Your task to perform on an android device: Open Wikipedia Image 0: 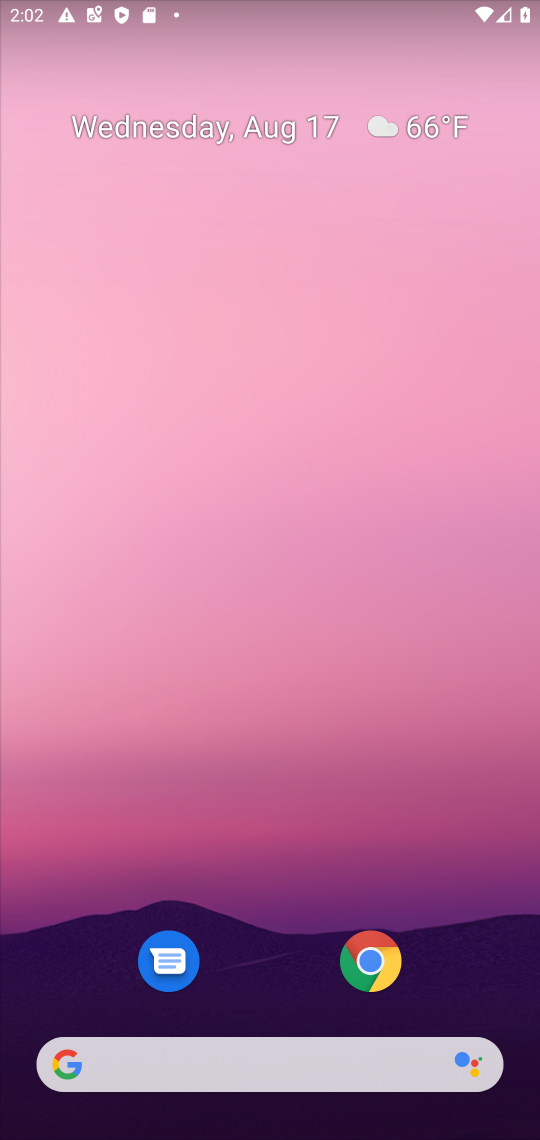
Step 0: drag from (292, 1001) to (331, 430)
Your task to perform on an android device: Open Wikipedia Image 1: 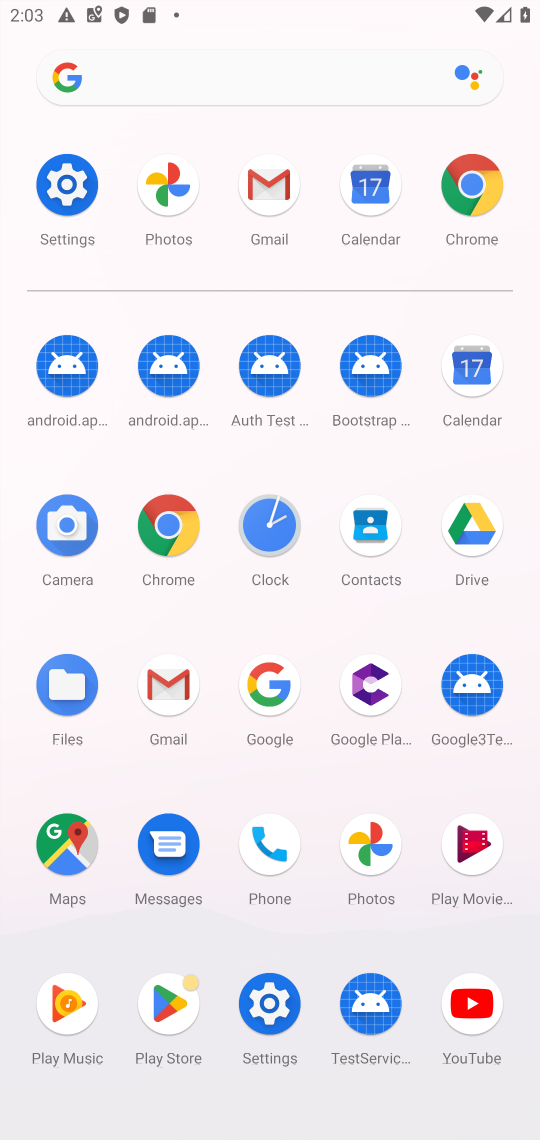
Step 1: click (479, 215)
Your task to perform on an android device: Open Wikipedia Image 2: 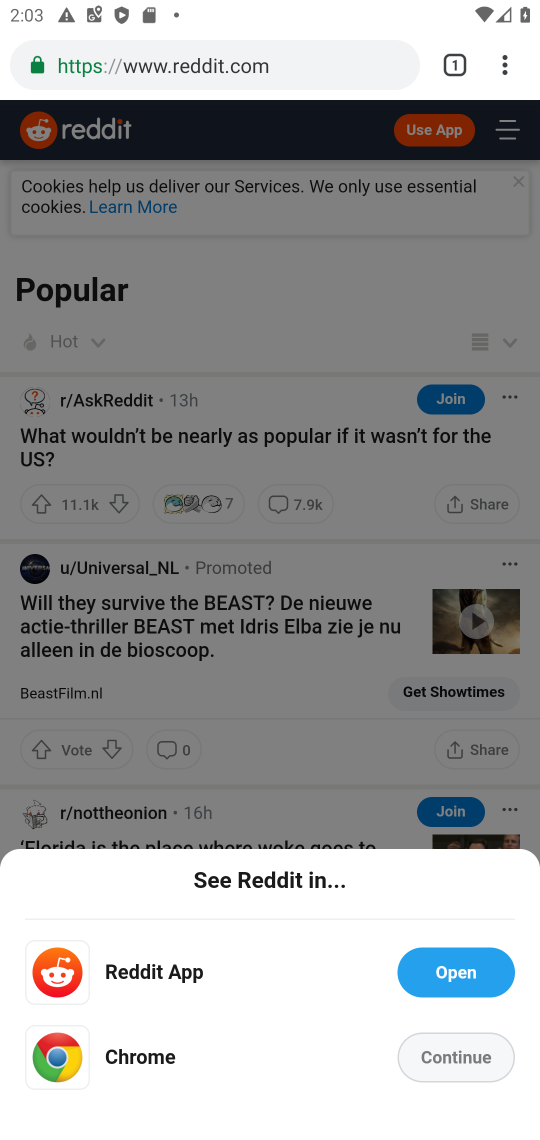
Step 2: click (351, 51)
Your task to perform on an android device: Open Wikipedia Image 3: 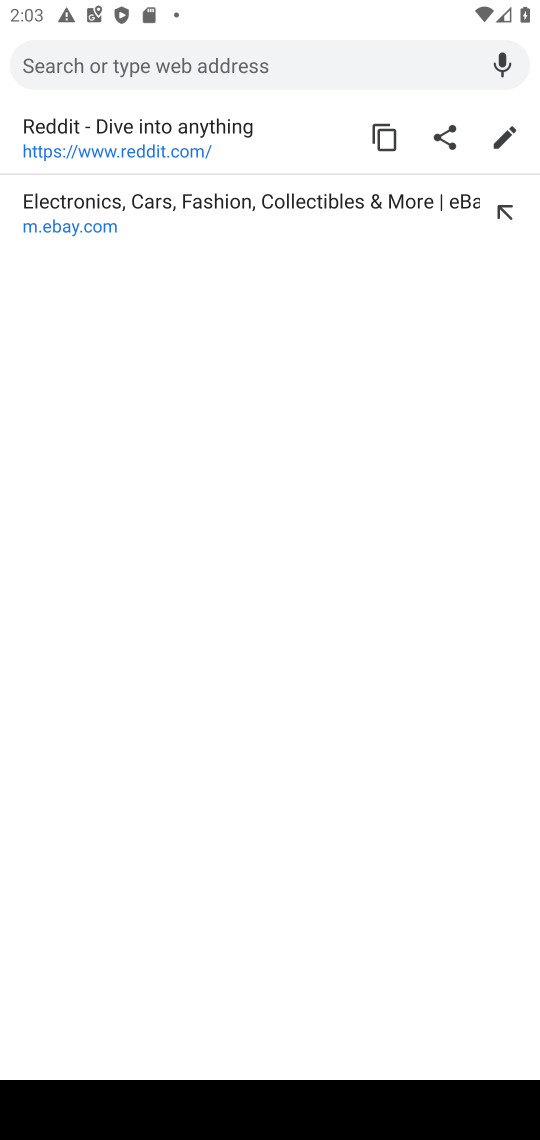
Step 3: type "wikipedia"
Your task to perform on an android device: Open Wikipedia Image 4: 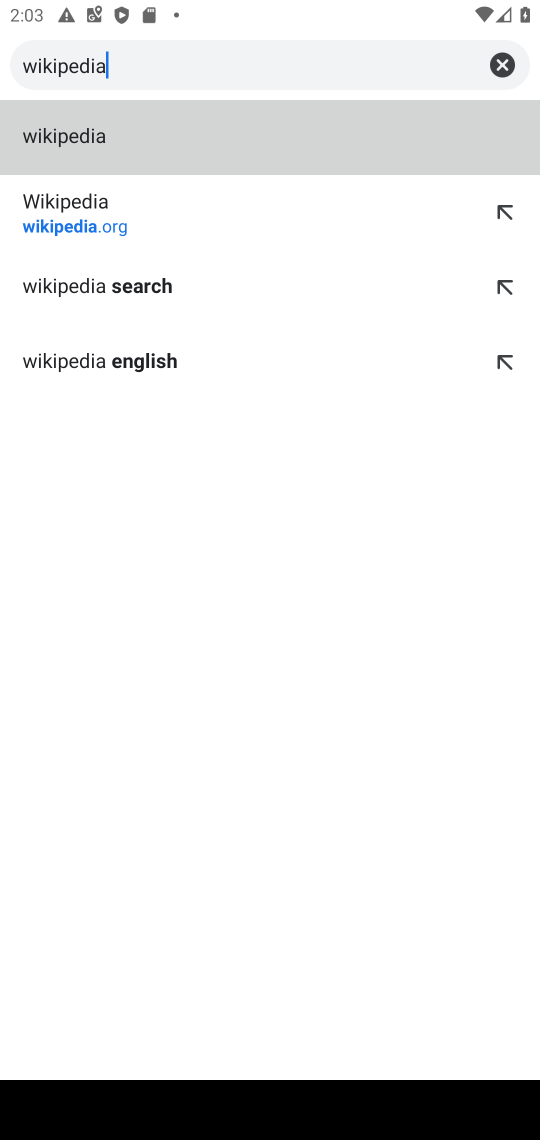
Step 4: click (155, 214)
Your task to perform on an android device: Open Wikipedia Image 5: 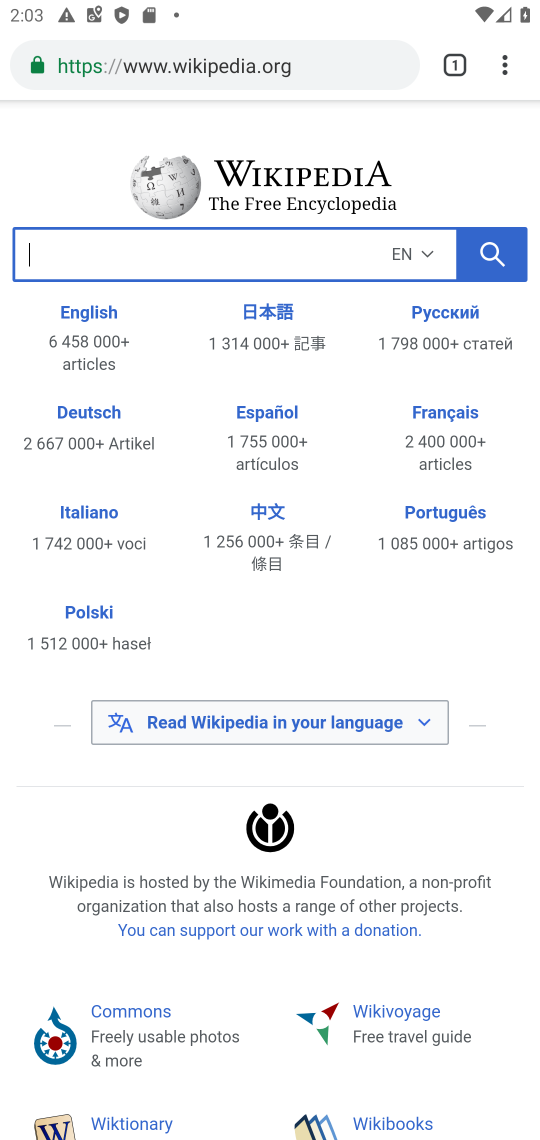
Step 5: task complete